Your task to perform on an android device: move a message to another label in the gmail app Image 0: 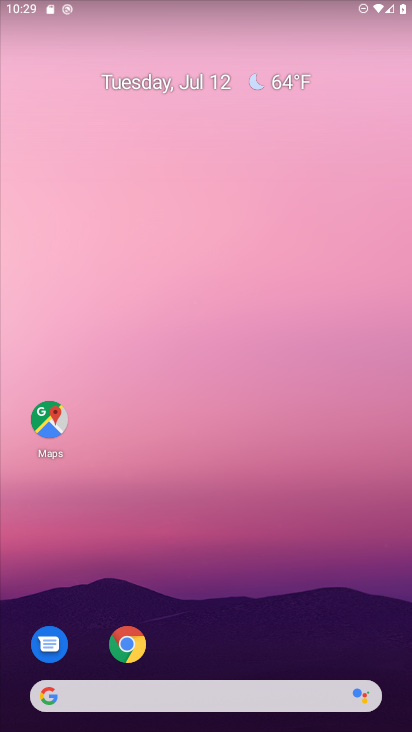
Step 0: drag from (270, 637) to (265, 212)
Your task to perform on an android device: move a message to another label in the gmail app Image 1: 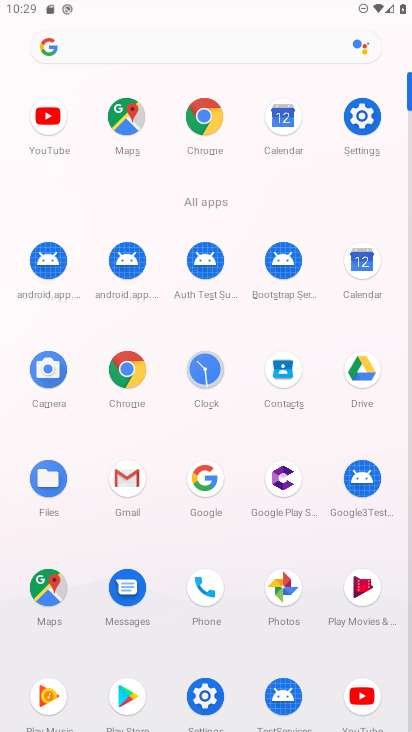
Step 1: click (129, 484)
Your task to perform on an android device: move a message to another label in the gmail app Image 2: 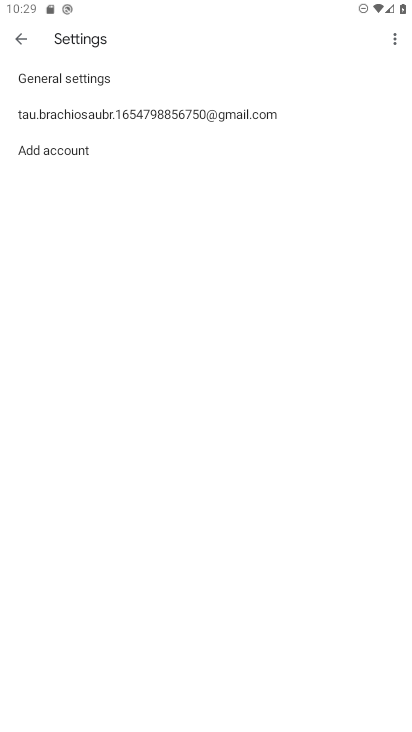
Step 2: click (11, 42)
Your task to perform on an android device: move a message to another label in the gmail app Image 3: 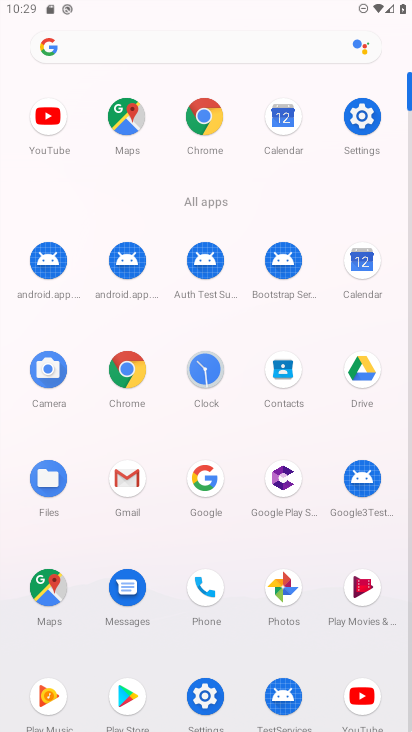
Step 3: click (121, 492)
Your task to perform on an android device: move a message to another label in the gmail app Image 4: 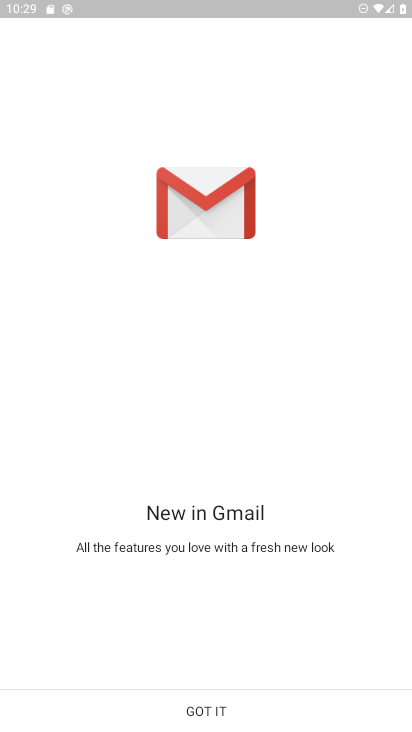
Step 4: click (244, 717)
Your task to perform on an android device: move a message to another label in the gmail app Image 5: 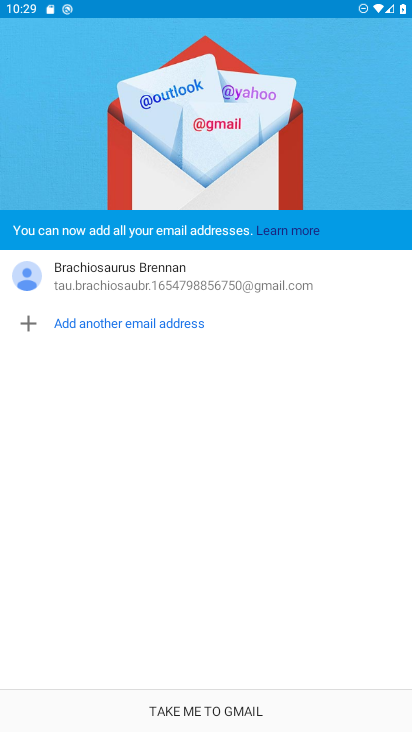
Step 5: click (244, 723)
Your task to perform on an android device: move a message to another label in the gmail app Image 6: 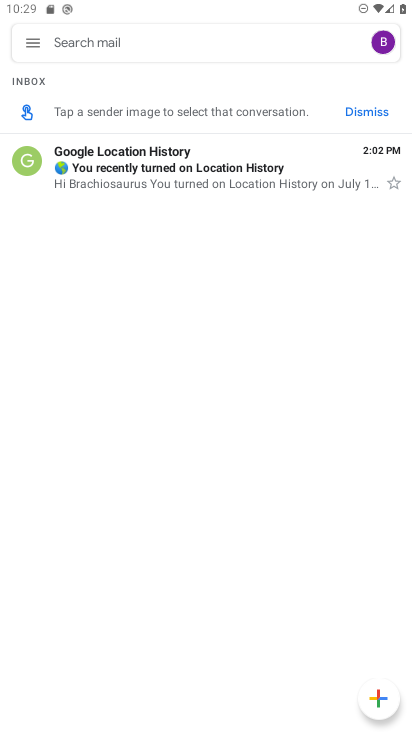
Step 6: click (193, 180)
Your task to perform on an android device: move a message to another label in the gmail app Image 7: 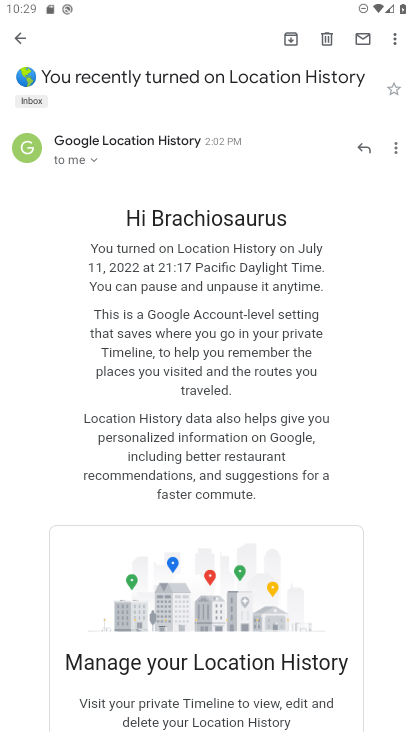
Step 7: click (389, 42)
Your task to perform on an android device: move a message to another label in the gmail app Image 8: 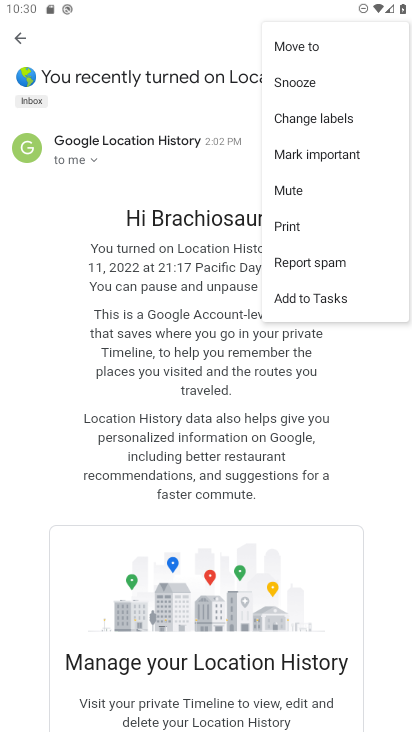
Step 8: click (301, 40)
Your task to perform on an android device: move a message to another label in the gmail app Image 9: 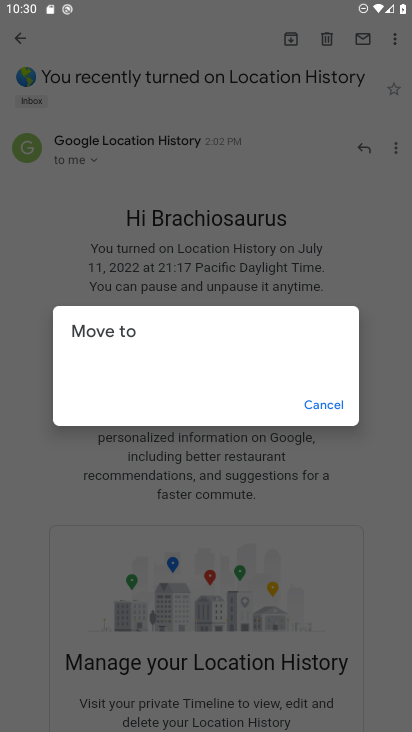
Step 9: click (151, 373)
Your task to perform on an android device: move a message to another label in the gmail app Image 10: 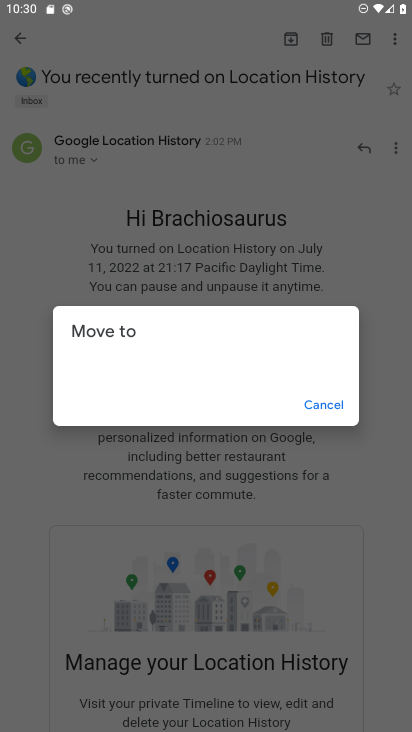
Step 10: click (151, 373)
Your task to perform on an android device: move a message to another label in the gmail app Image 11: 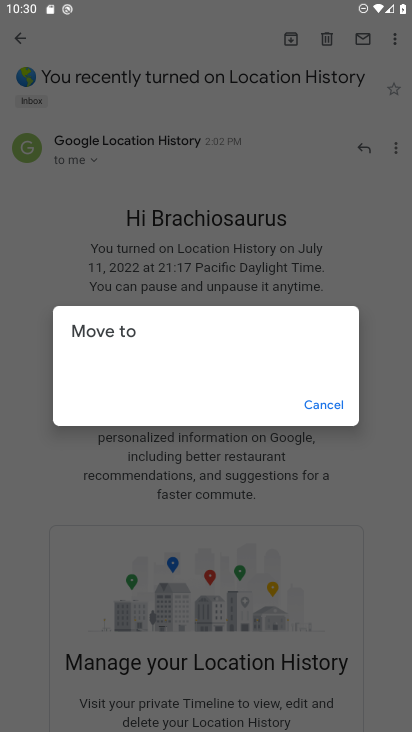
Step 11: task complete